Your task to perform on an android device: Open privacy settings Image 0: 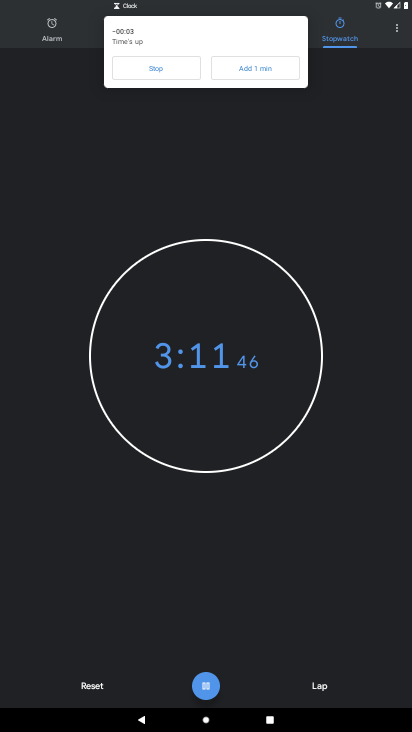
Step 0: press home button
Your task to perform on an android device: Open privacy settings Image 1: 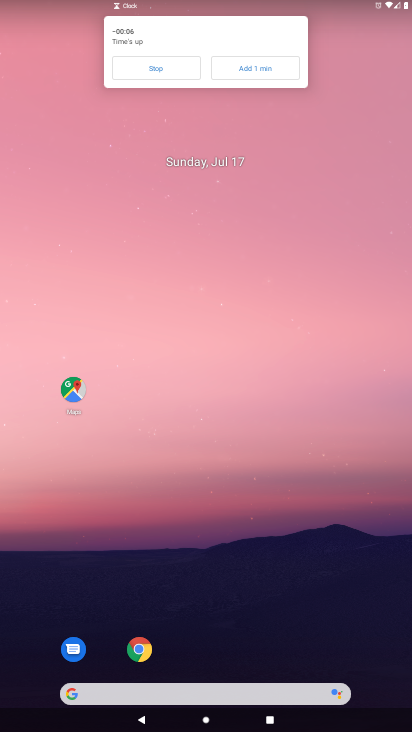
Step 1: drag from (257, 602) to (407, 226)
Your task to perform on an android device: Open privacy settings Image 2: 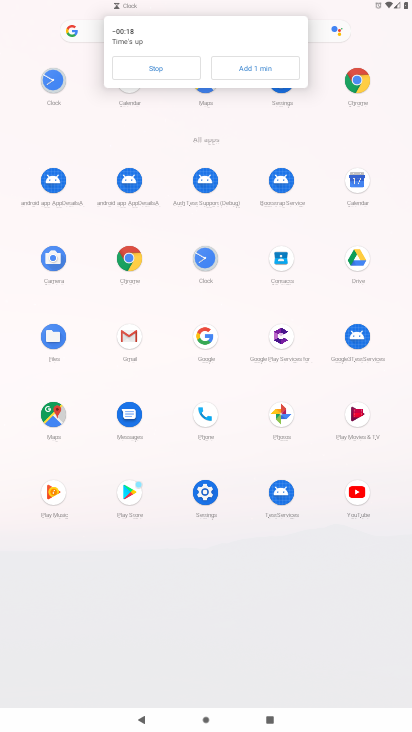
Step 2: click (211, 500)
Your task to perform on an android device: Open privacy settings Image 3: 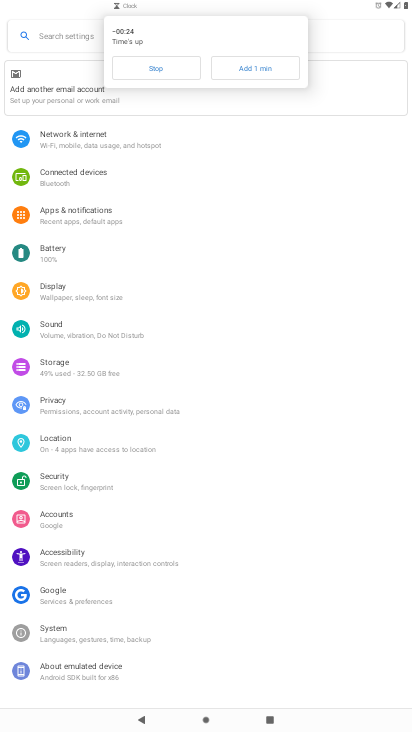
Step 3: click (163, 76)
Your task to perform on an android device: Open privacy settings Image 4: 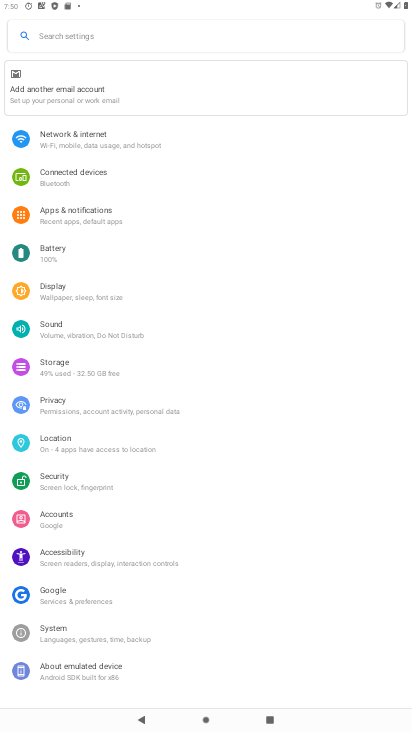
Step 4: click (65, 404)
Your task to perform on an android device: Open privacy settings Image 5: 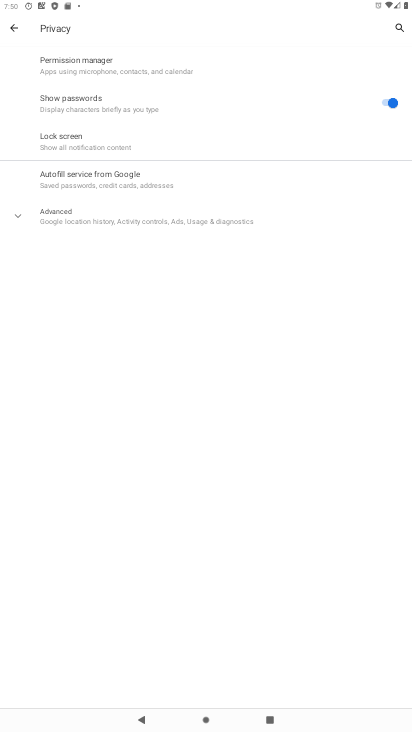
Step 5: task complete